Your task to perform on an android device: turn on showing notifications on the lock screen Image 0: 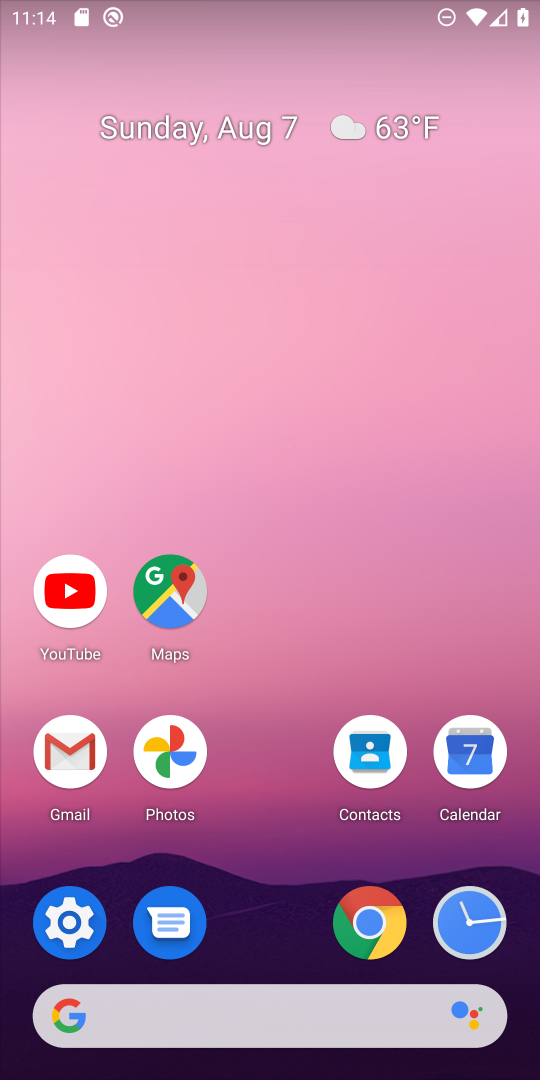
Step 0: click (60, 919)
Your task to perform on an android device: turn on showing notifications on the lock screen Image 1: 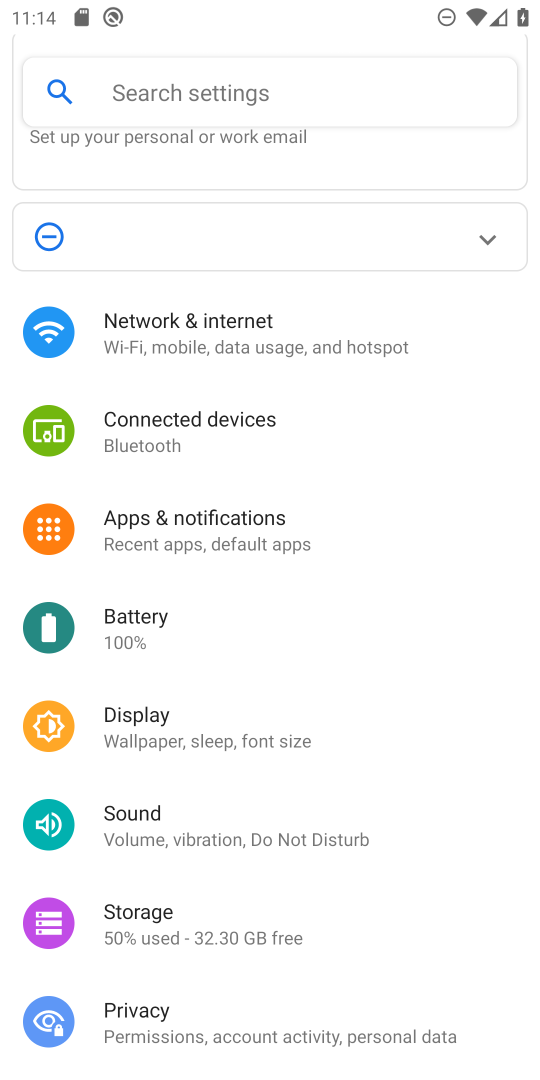
Step 1: click (166, 561)
Your task to perform on an android device: turn on showing notifications on the lock screen Image 2: 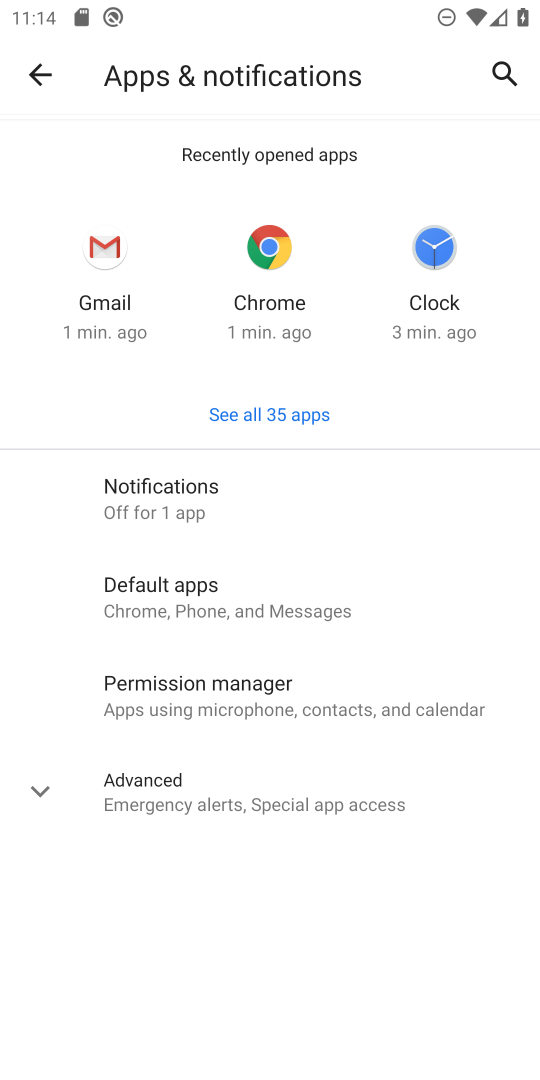
Step 2: click (51, 787)
Your task to perform on an android device: turn on showing notifications on the lock screen Image 3: 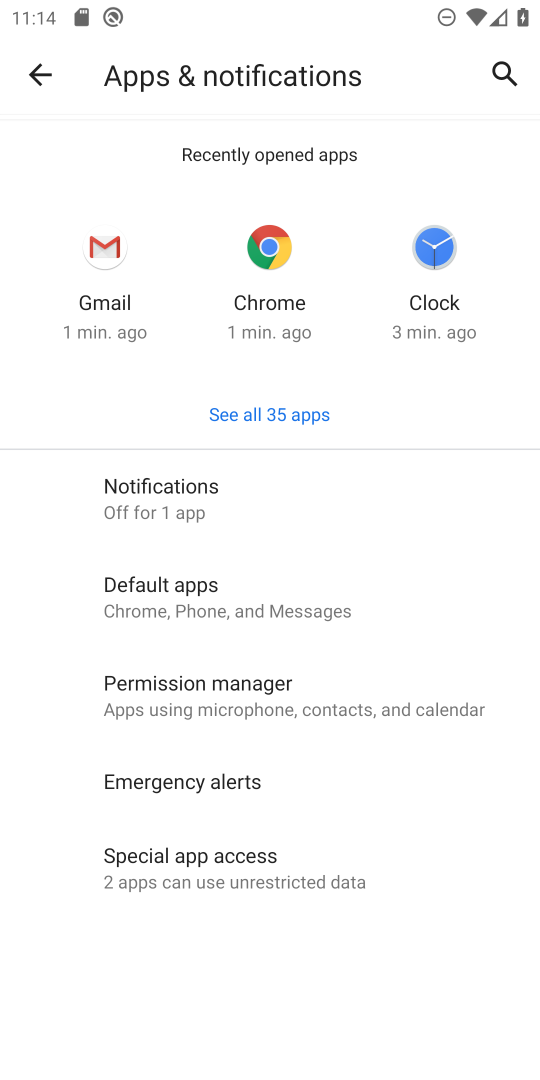
Step 3: click (141, 490)
Your task to perform on an android device: turn on showing notifications on the lock screen Image 4: 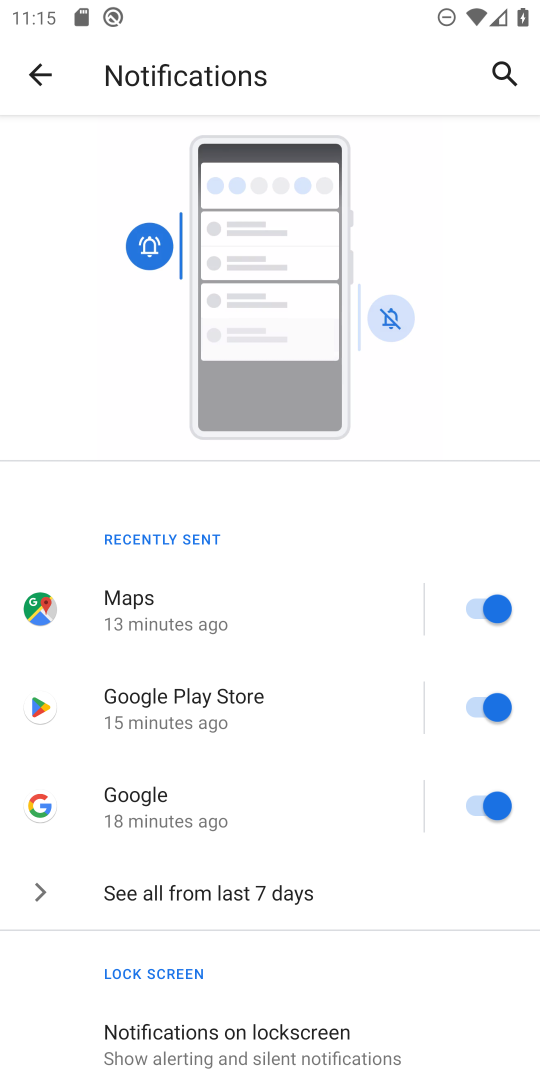
Step 4: click (270, 1026)
Your task to perform on an android device: turn on showing notifications on the lock screen Image 5: 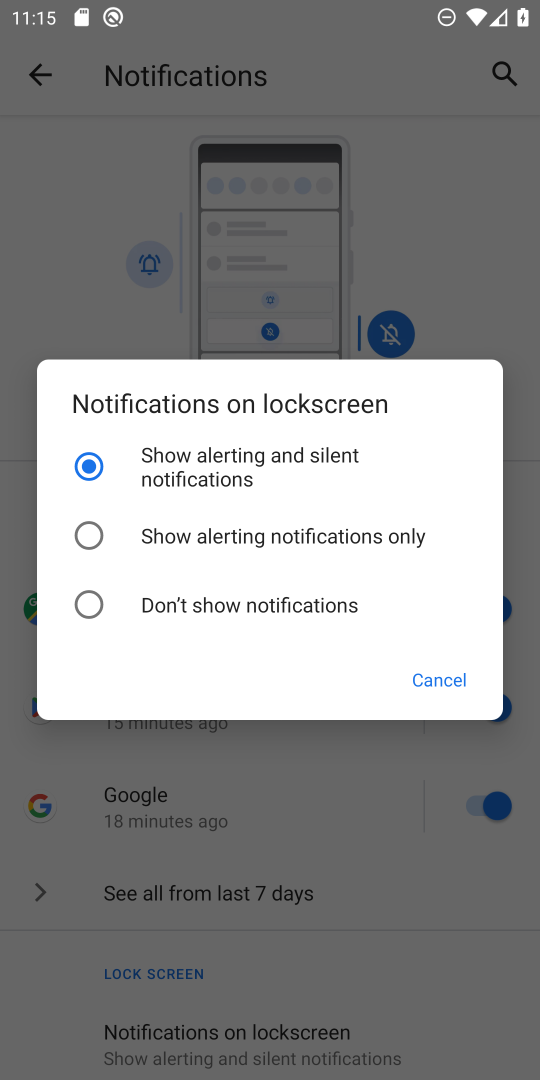
Step 5: task complete